Your task to perform on an android device: turn on javascript in the chrome app Image 0: 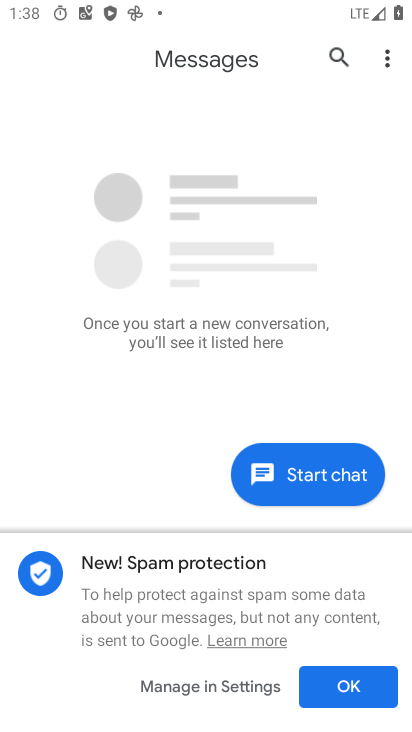
Step 0: press home button
Your task to perform on an android device: turn on javascript in the chrome app Image 1: 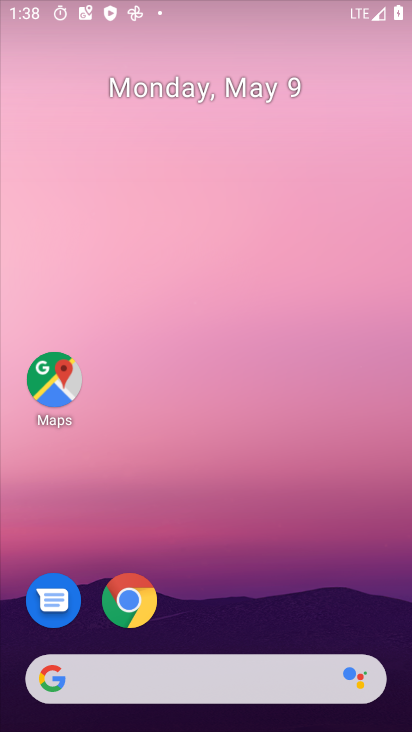
Step 1: drag from (302, 631) to (311, 246)
Your task to perform on an android device: turn on javascript in the chrome app Image 2: 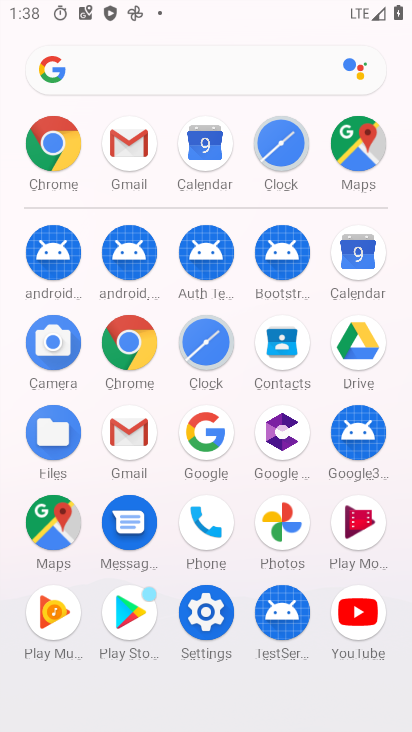
Step 2: click (142, 339)
Your task to perform on an android device: turn on javascript in the chrome app Image 3: 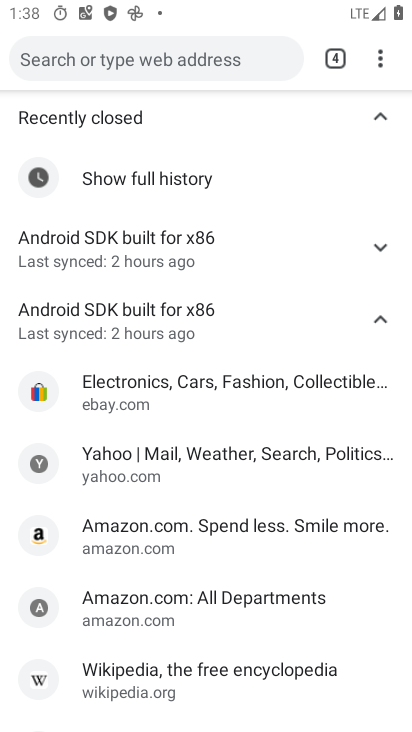
Step 3: click (382, 66)
Your task to perform on an android device: turn on javascript in the chrome app Image 4: 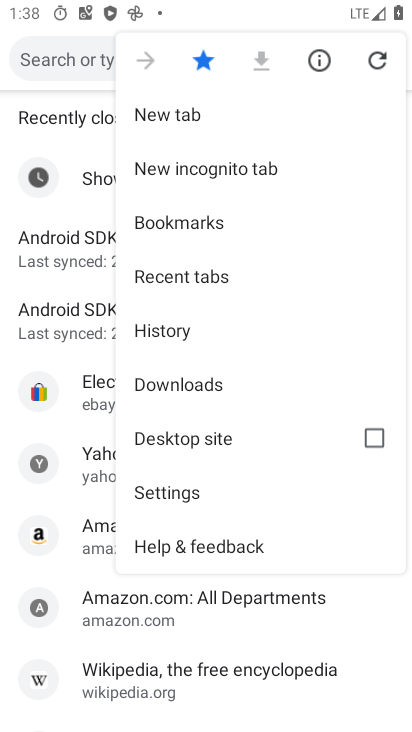
Step 4: click (231, 493)
Your task to perform on an android device: turn on javascript in the chrome app Image 5: 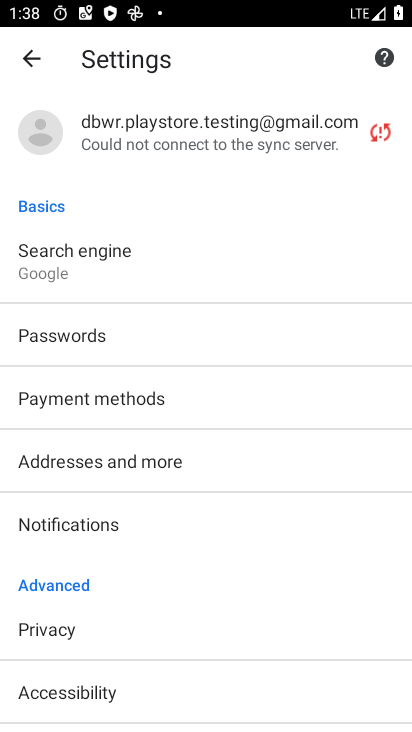
Step 5: drag from (118, 594) to (211, 299)
Your task to perform on an android device: turn on javascript in the chrome app Image 6: 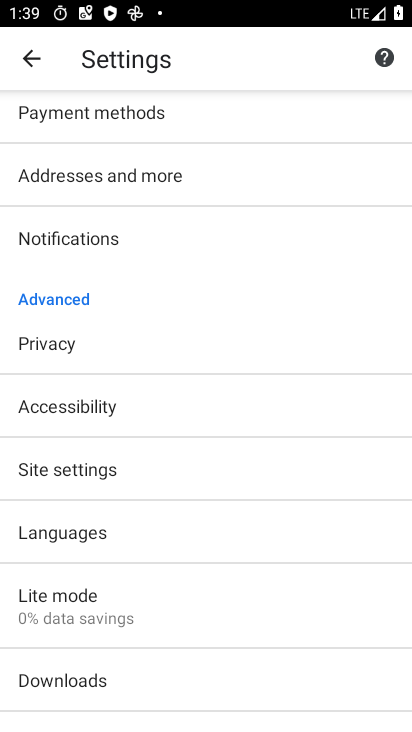
Step 6: click (117, 481)
Your task to perform on an android device: turn on javascript in the chrome app Image 7: 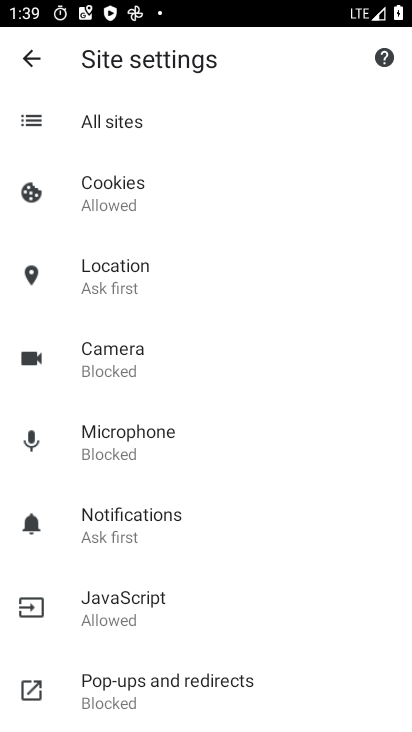
Step 7: click (142, 601)
Your task to perform on an android device: turn on javascript in the chrome app Image 8: 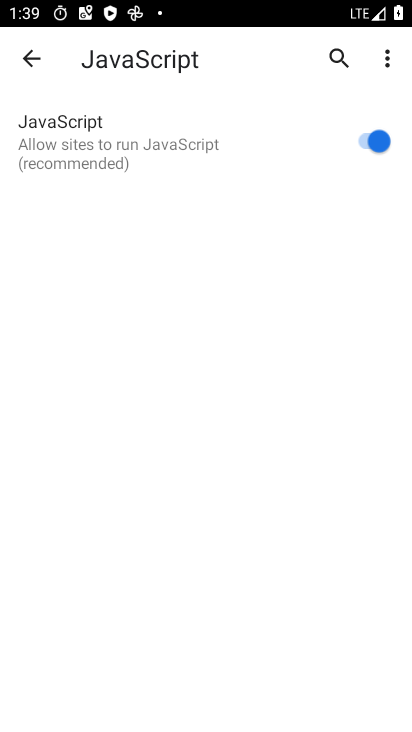
Step 8: task complete